Your task to perform on an android device: Open calendar and show me the fourth week of next month Image 0: 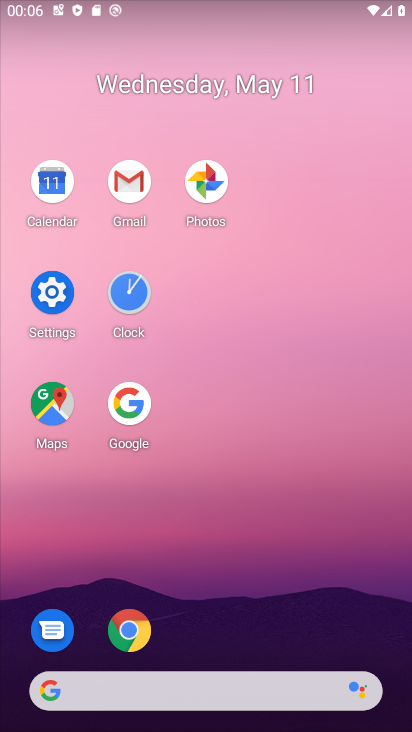
Step 0: drag from (286, 637) to (267, 11)
Your task to perform on an android device: Open calendar and show me the fourth week of next month Image 1: 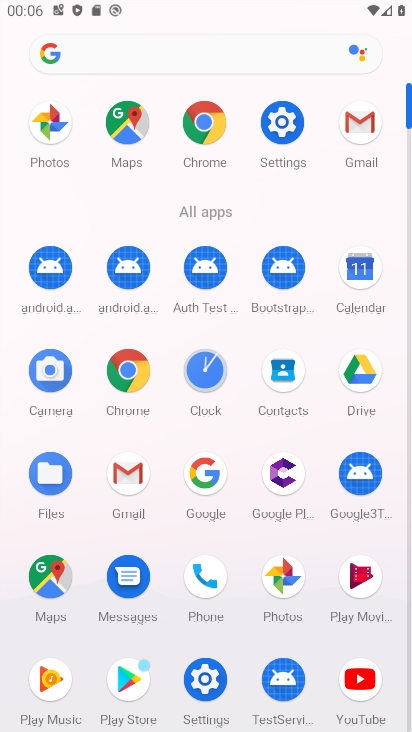
Step 1: drag from (362, 270) to (244, 246)
Your task to perform on an android device: Open calendar and show me the fourth week of next month Image 2: 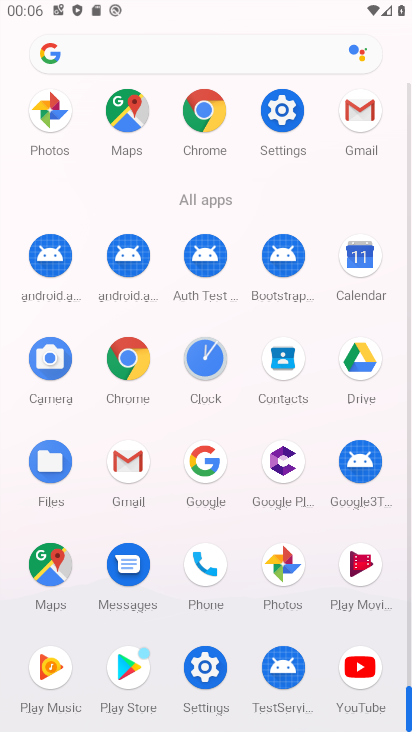
Step 2: drag from (358, 250) to (226, 296)
Your task to perform on an android device: Open calendar and show me the fourth week of next month Image 3: 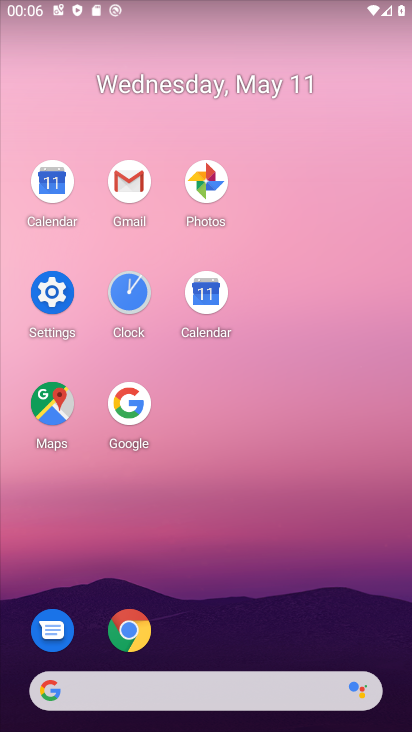
Step 3: click (216, 290)
Your task to perform on an android device: Open calendar and show me the fourth week of next month Image 4: 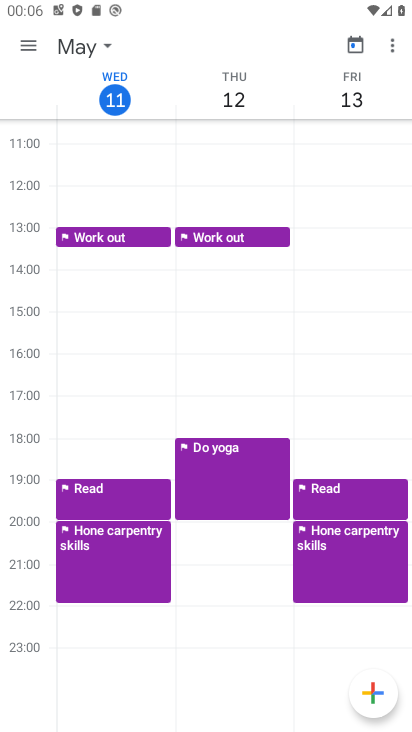
Step 4: click (90, 40)
Your task to perform on an android device: Open calendar and show me the fourth week of next month Image 5: 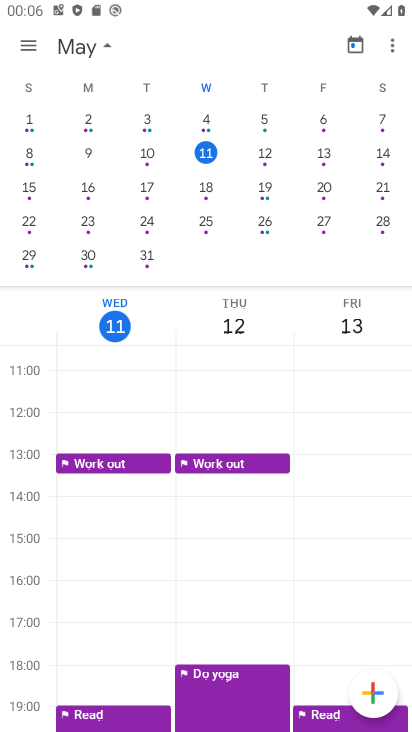
Step 5: drag from (399, 183) to (29, 168)
Your task to perform on an android device: Open calendar and show me the fourth week of next month Image 6: 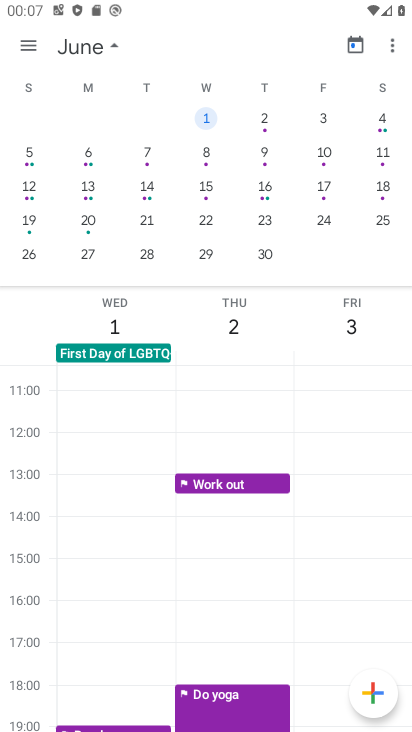
Step 6: click (42, 41)
Your task to perform on an android device: Open calendar and show me the fourth week of next month Image 7: 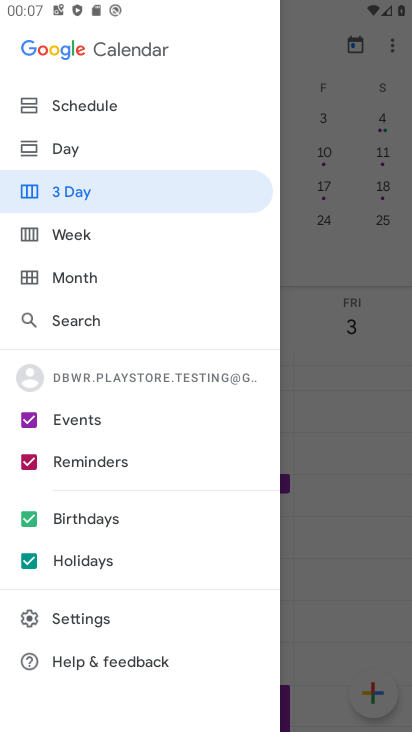
Step 7: click (103, 233)
Your task to perform on an android device: Open calendar and show me the fourth week of next month Image 8: 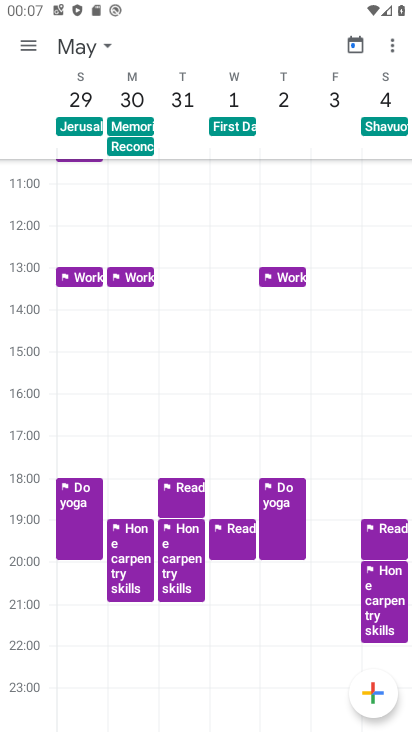
Step 8: task complete